Your task to perform on an android device: change the upload size in google photos Image 0: 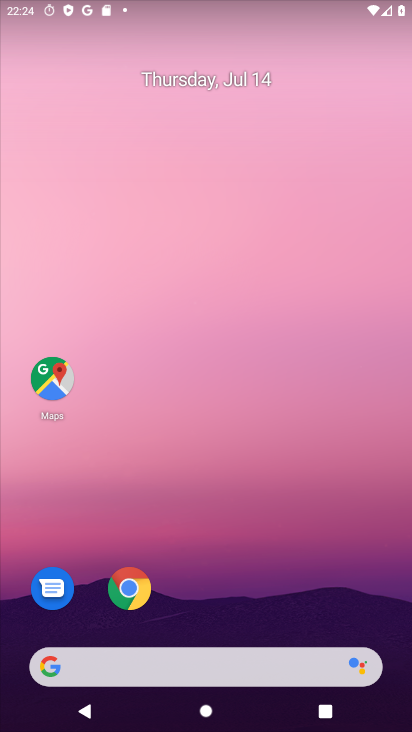
Step 0: drag from (226, 613) to (245, 167)
Your task to perform on an android device: change the upload size in google photos Image 1: 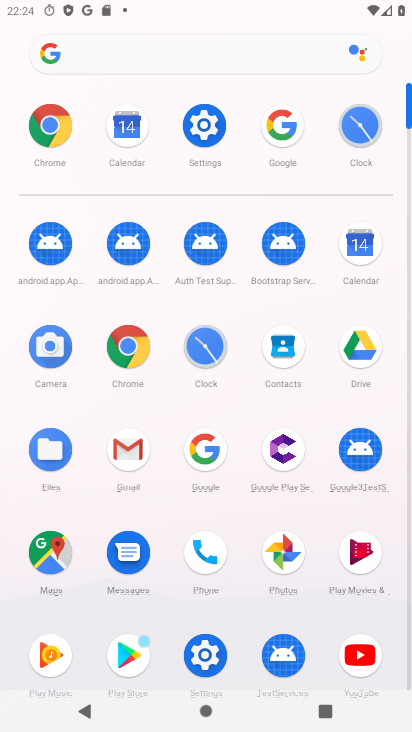
Step 1: click (279, 555)
Your task to perform on an android device: change the upload size in google photos Image 2: 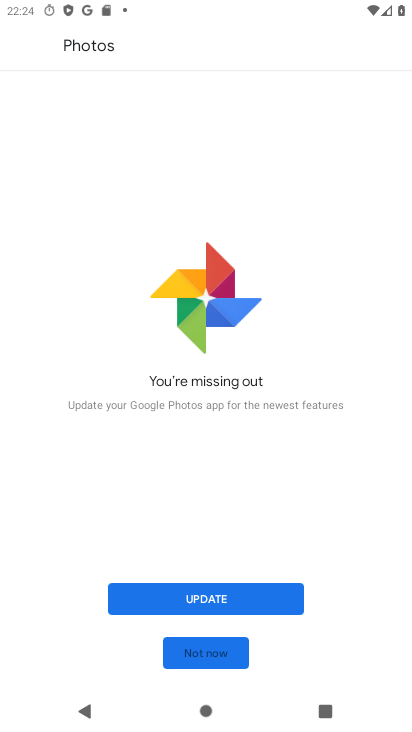
Step 2: click (207, 582)
Your task to perform on an android device: change the upload size in google photos Image 3: 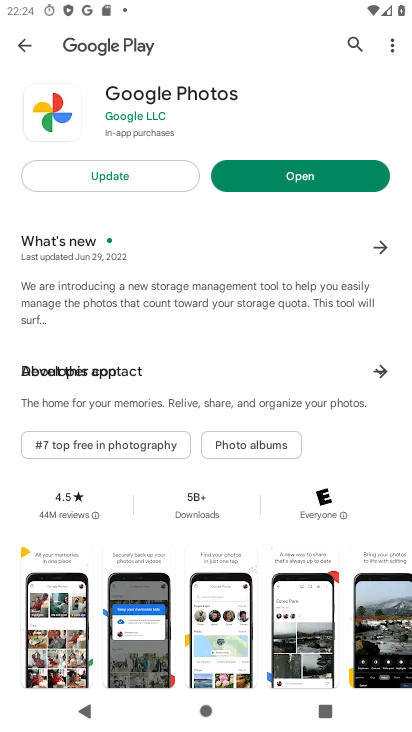
Step 3: click (129, 172)
Your task to perform on an android device: change the upload size in google photos Image 4: 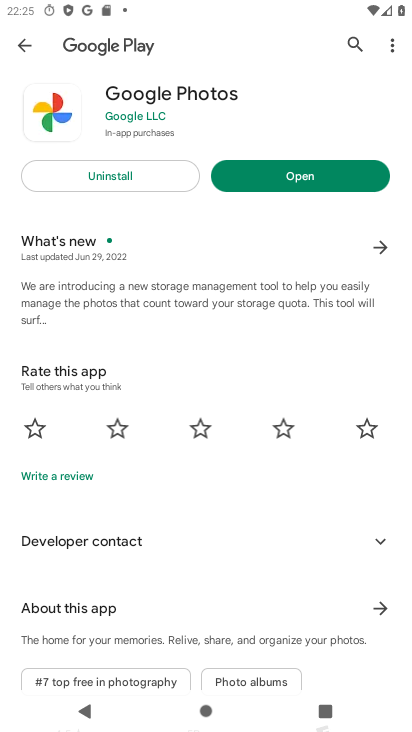
Step 4: click (328, 172)
Your task to perform on an android device: change the upload size in google photos Image 5: 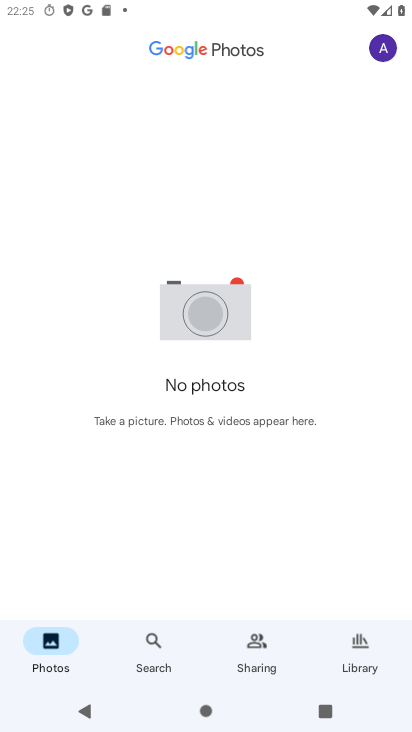
Step 5: click (382, 50)
Your task to perform on an android device: change the upload size in google photos Image 6: 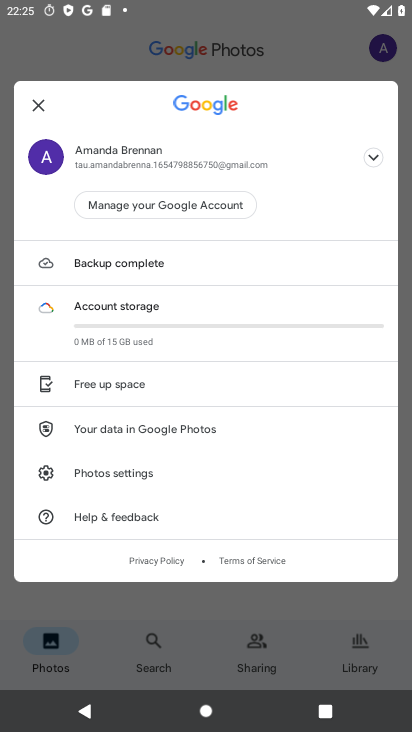
Step 6: click (125, 475)
Your task to perform on an android device: change the upload size in google photos Image 7: 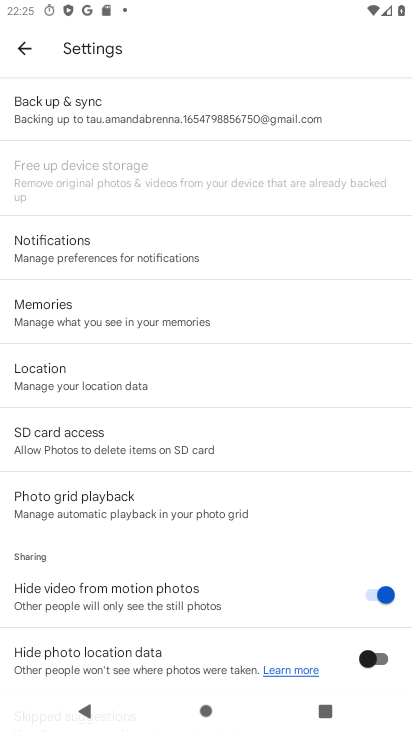
Step 7: click (126, 98)
Your task to perform on an android device: change the upload size in google photos Image 8: 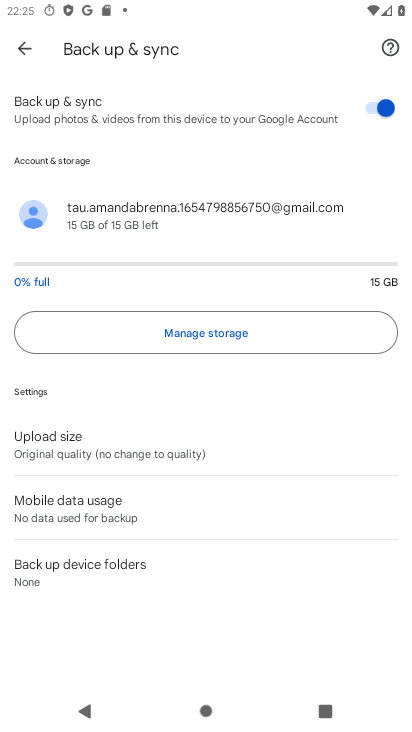
Step 8: click (80, 438)
Your task to perform on an android device: change the upload size in google photos Image 9: 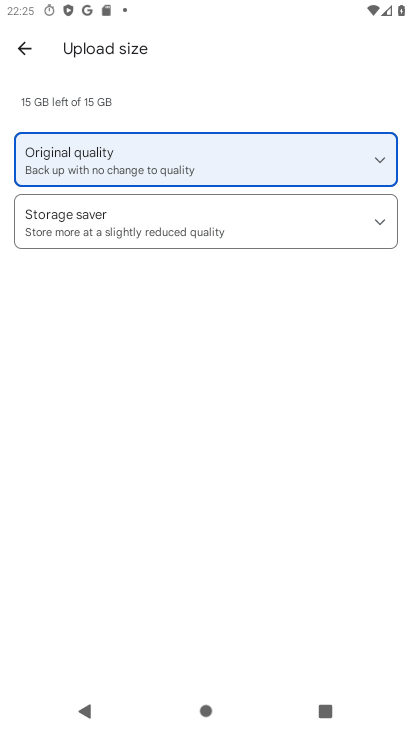
Step 9: click (150, 226)
Your task to perform on an android device: change the upload size in google photos Image 10: 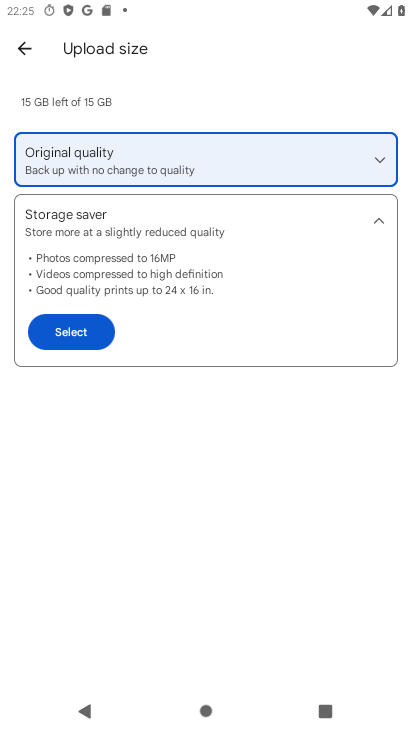
Step 10: click (76, 330)
Your task to perform on an android device: change the upload size in google photos Image 11: 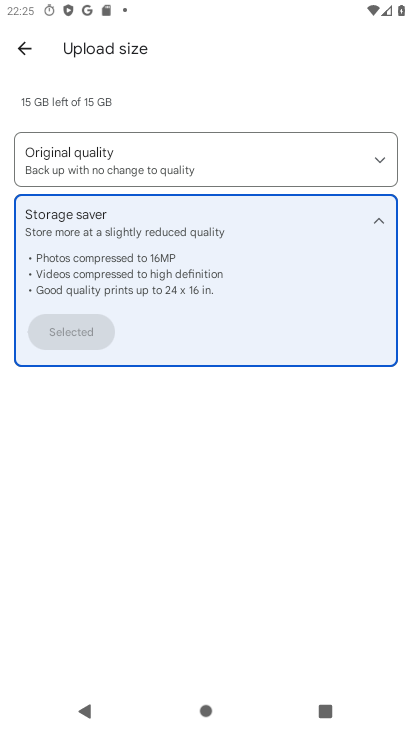
Step 11: task complete